Your task to perform on an android device: Check the weather Image 0: 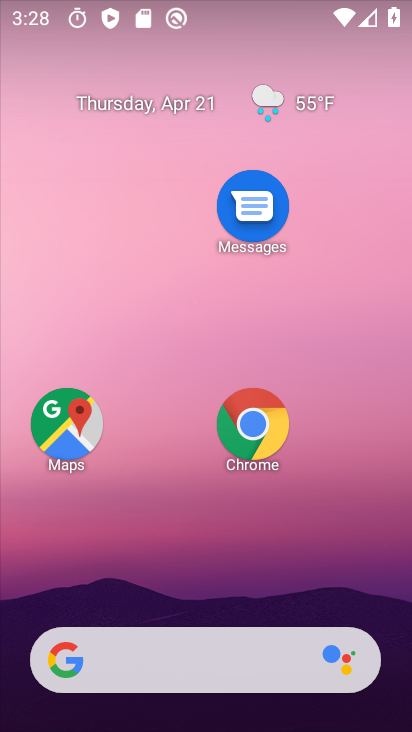
Step 0: drag from (239, 536) to (308, 88)
Your task to perform on an android device: Check the weather Image 1: 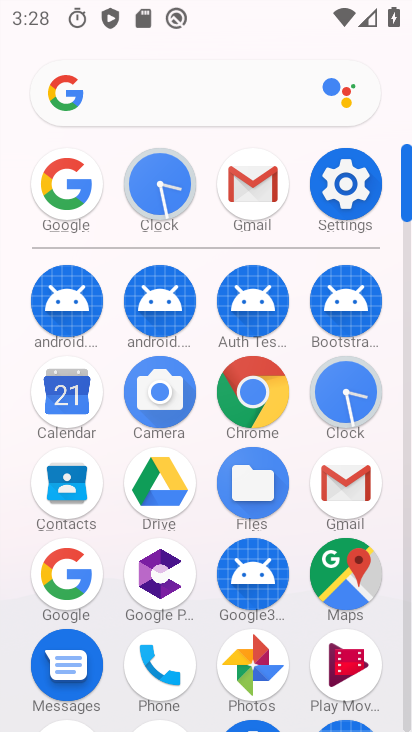
Step 1: click (60, 186)
Your task to perform on an android device: Check the weather Image 2: 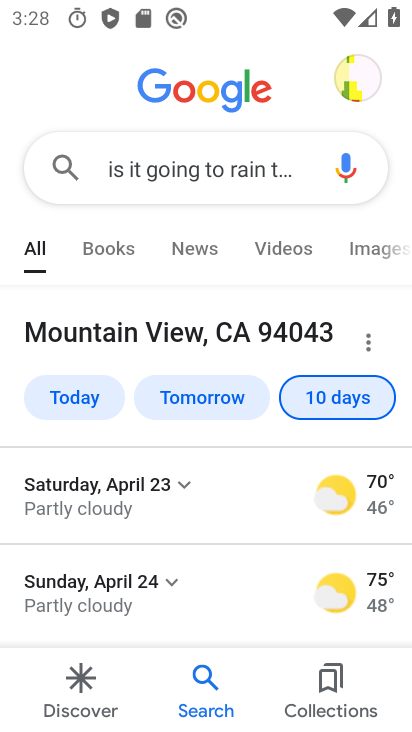
Step 2: click (291, 176)
Your task to perform on an android device: Check the weather Image 3: 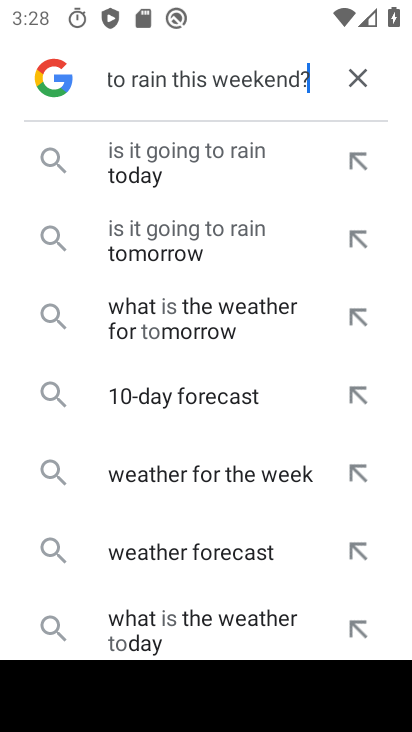
Step 3: click (356, 78)
Your task to perform on an android device: Check the weather Image 4: 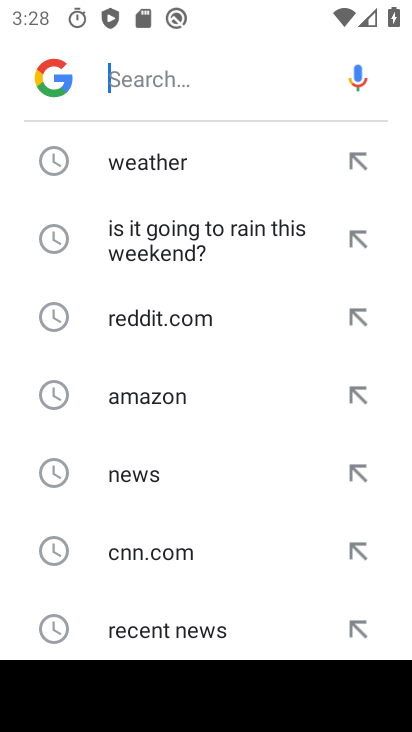
Step 4: click (147, 162)
Your task to perform on an android device: Check the weather Image 5: 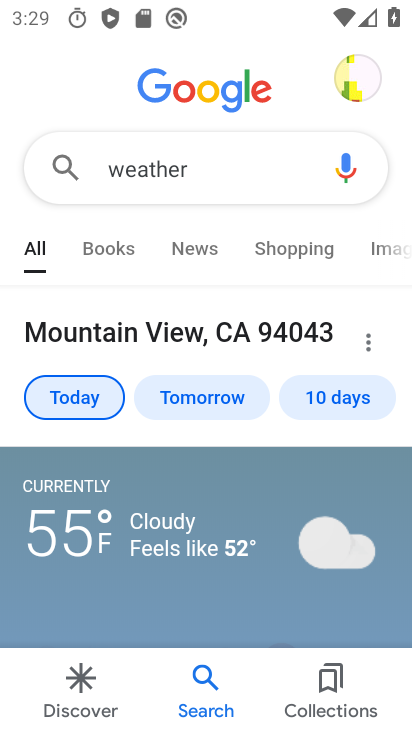
Step 5: task complete